Your task to perform on an android device: toggle data saver in the chrome app Image 0: 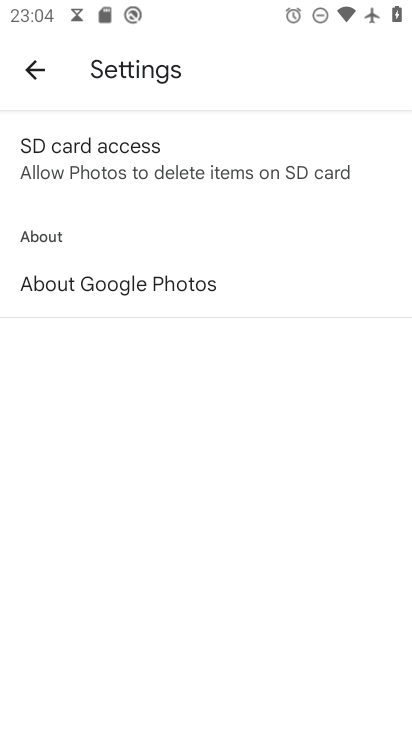
Step 0: press home button
Your task to perform on an android device: toggle data saver in the chrome app Image 1: 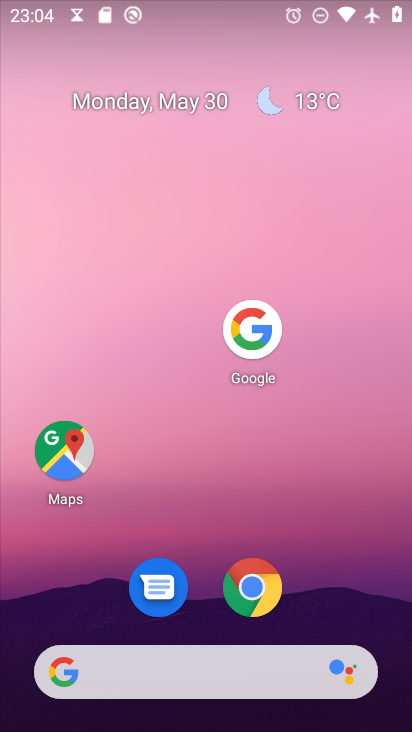
Step 1: click (255, 584)
Your task to perform on an android device: toggle data saver in the chrome app Image 2: 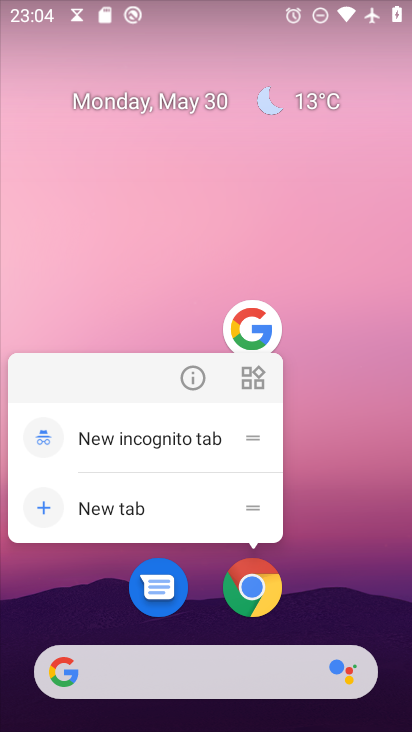
Step 2: click (250, 598)
Your task to perform on an android device: toggle data saver in the chrome app Image 3: 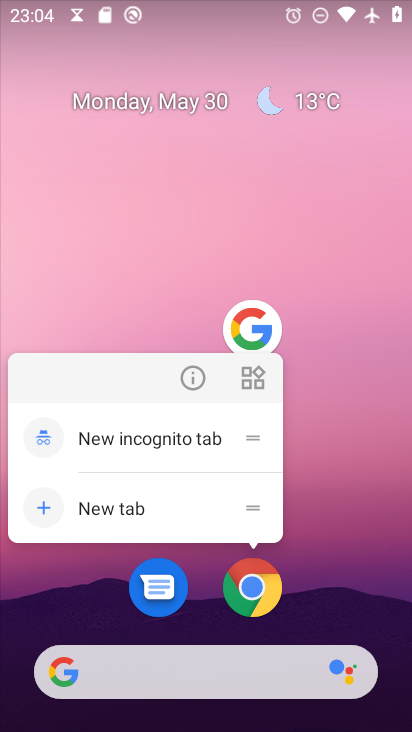
Step 3: click (250, 589)
Your task to perform on an android device: toggle data saver in the chrome app Image 4: 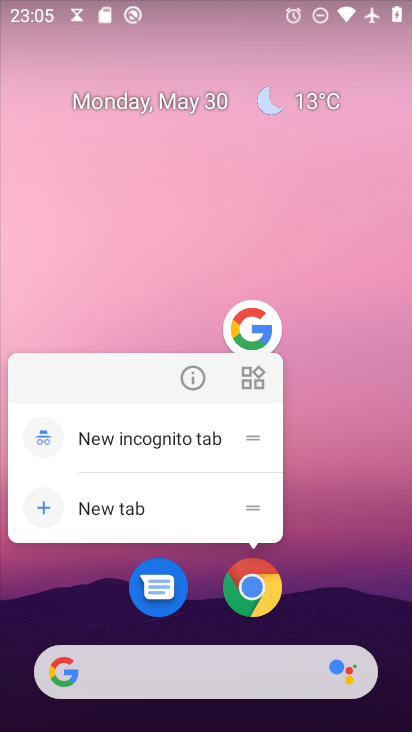
Step 4: click (256, 591)
Your task to perform on an android device: toggle data saver in the chrome app Image 5: 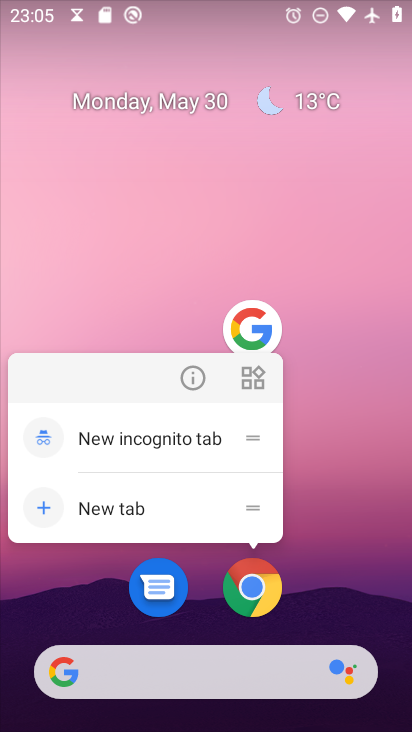
Step 5: click (238, 597)
Your task to perform on an android device: toggle data saver in the chrome app Image 6: 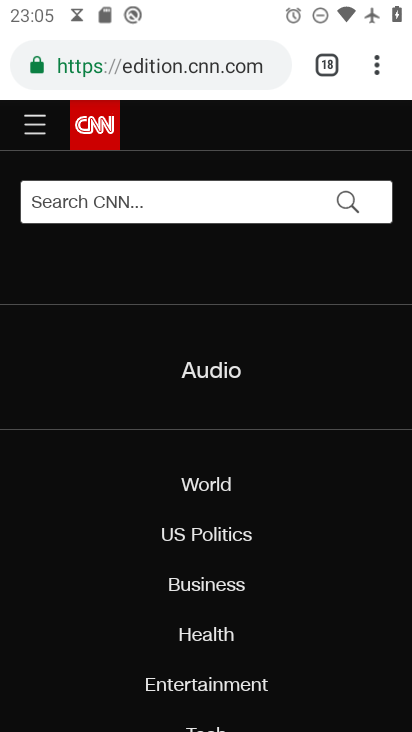
Step 6: drag from (376, 65) to (230, 636)
Your task to perform on an android device: toggle data saver in the chrome app Image 7: 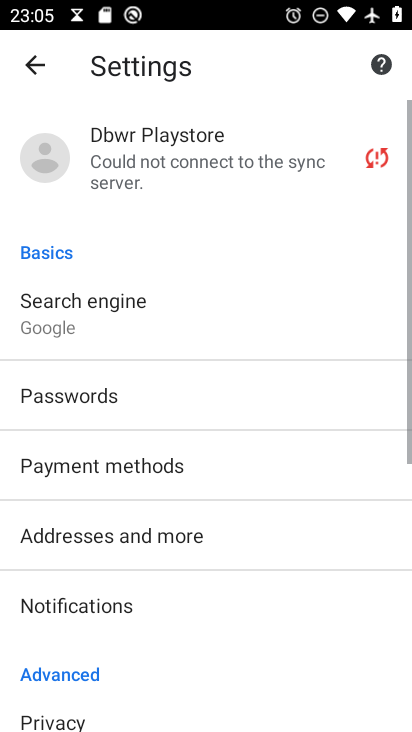
Step 7: drag from (202, 653) to (277, 235)
Your task to perform on an android device: toggle data saver in the chrome app Image 8: 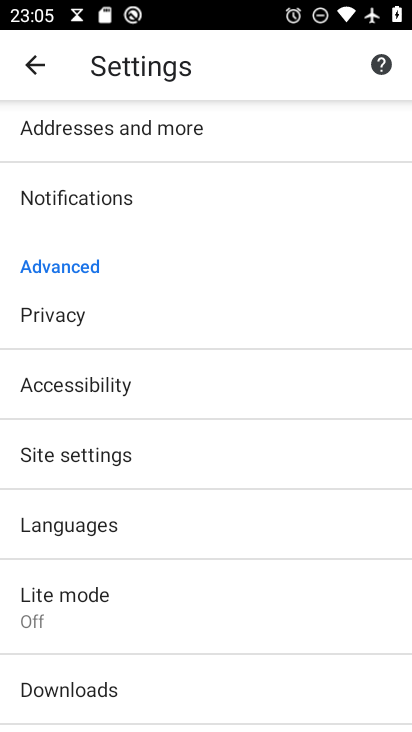
Step 8: click (114, 595)
Your task to perform on an android device: toggle data saver in the chrome app Image 9: 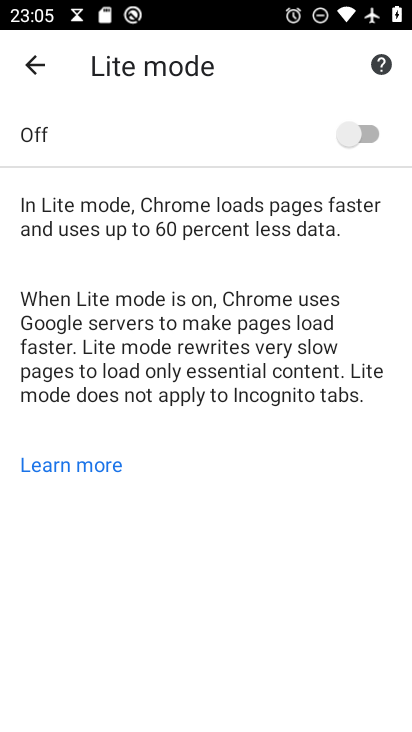
Step 9: task complete